Your task to perform on an android device: open a bookmark in the chrome app Image 0: 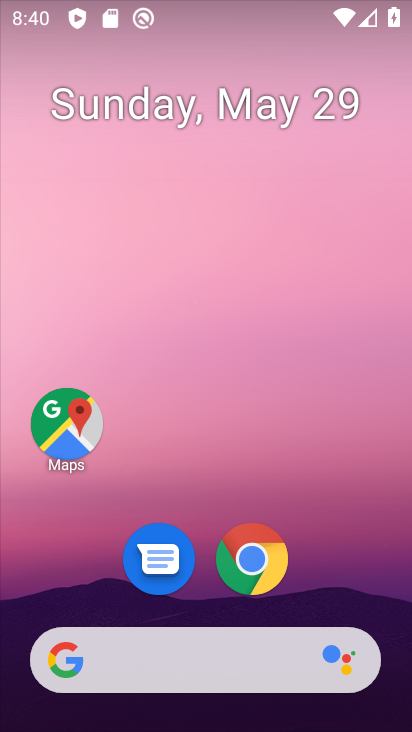
Step 0: click (259, 554)
Your task to perform on an android device: open a bookmark in the chrome app Image 1: 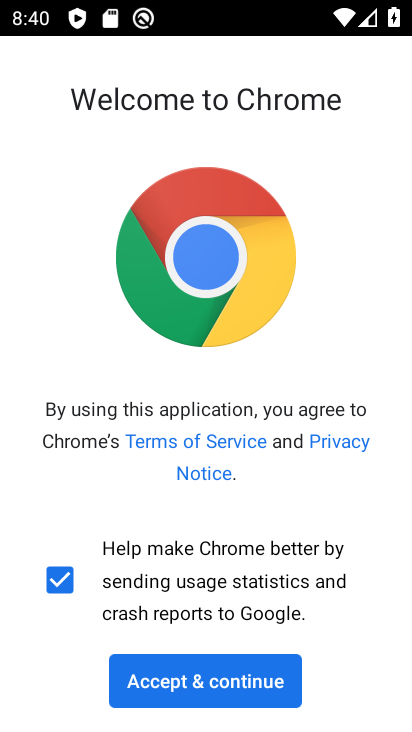
Step 1: click (241, 669)
Your task to perform on an android device: open a bookmark in the chrome app Image 2: 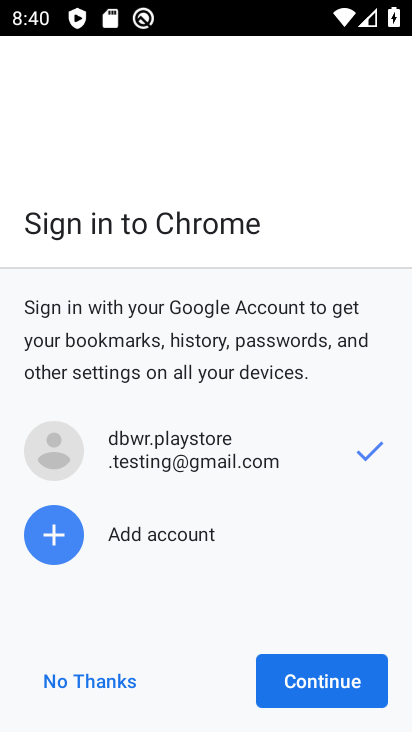
Step 2: click (281, 676)
Your task to perform on an android device: open a bookmark in the chrome app Image 3: 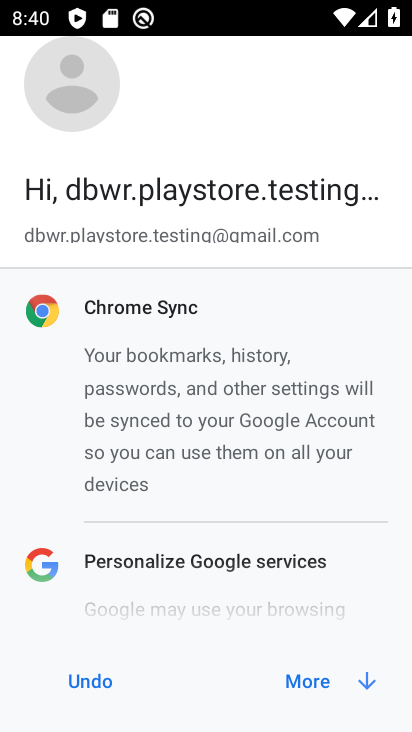
Step 3: click (313, 677)
Your task to perform on an android device: open a bookmark in the chrome app Image 4: 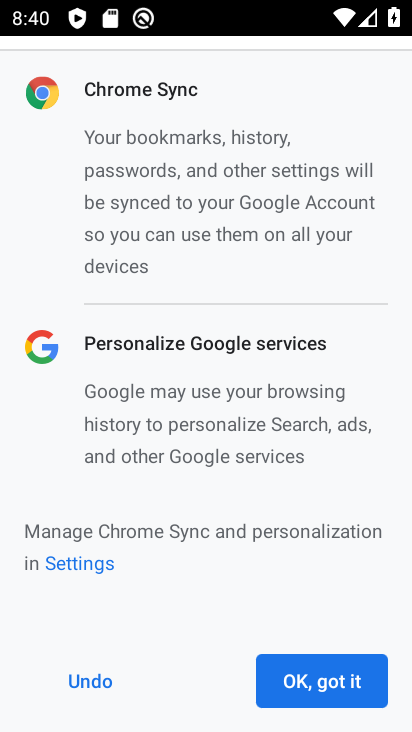
Step 4: click (313, 677)
Your task to perform on an android device: open a bookmark in the chrome app Image 5: 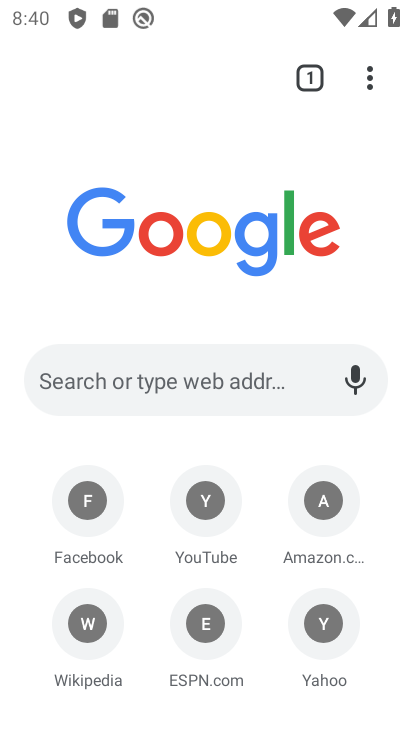
Step 5: click (368, 69)
Your task to perform on an android device: open a bookmark in the chrome app Image 6: 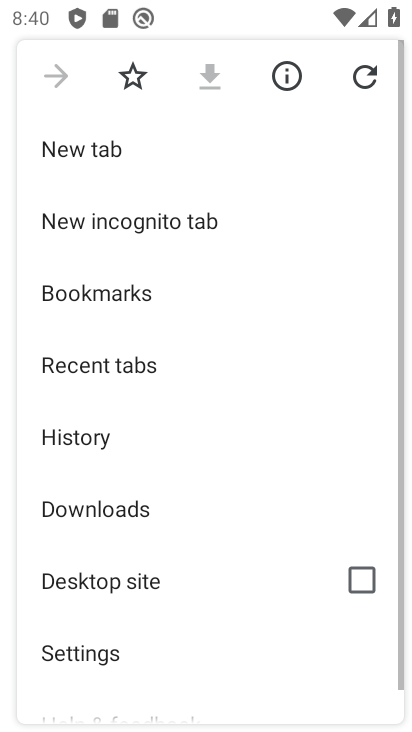
Step 6: click (140, 297)
Your task to perform on an android device: open a bookmark in the chrome app Image 7: 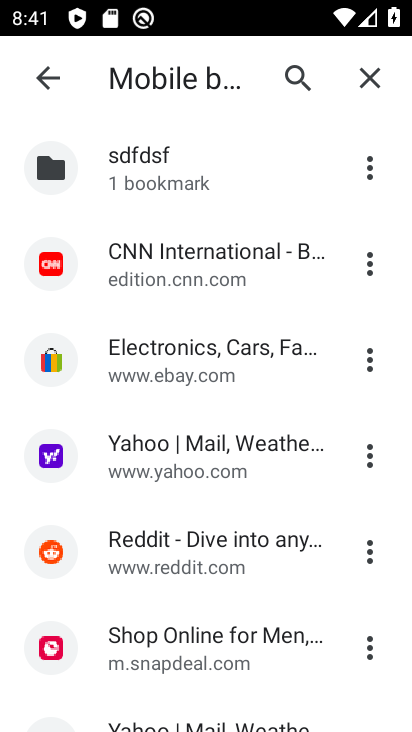
Step 7: task complete